Your task to perform on an android device: snooze an email in the gmail app Image 0: 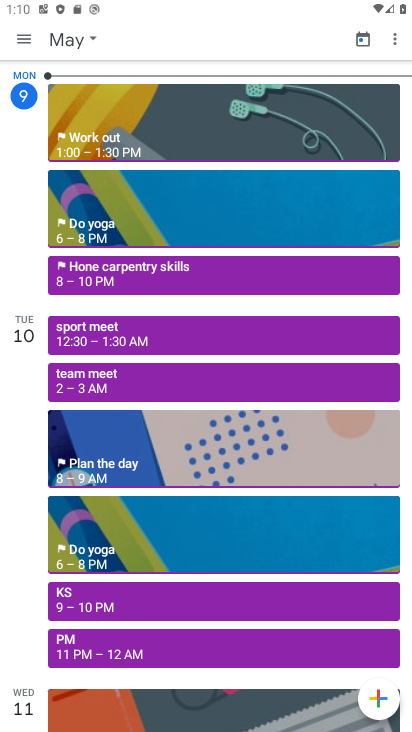
Step 0: press home button
Your task to perform on an android device: snooze an email in the gmail app Image 1: 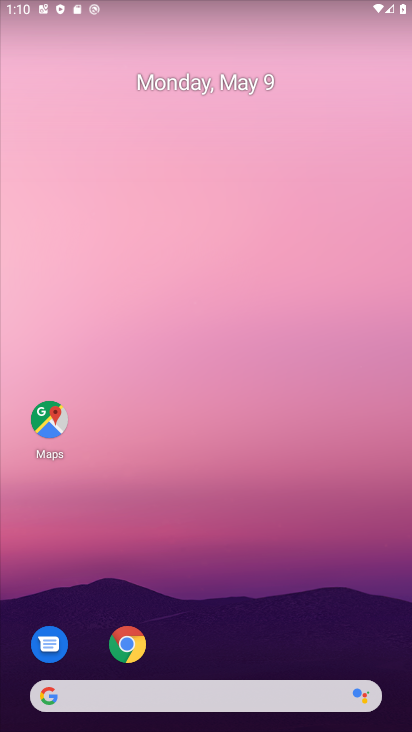
Step 1: drag from (247, 645) to (144, 269)
Your task to perform on an android device: snooze an email in the gmail app Image 2: 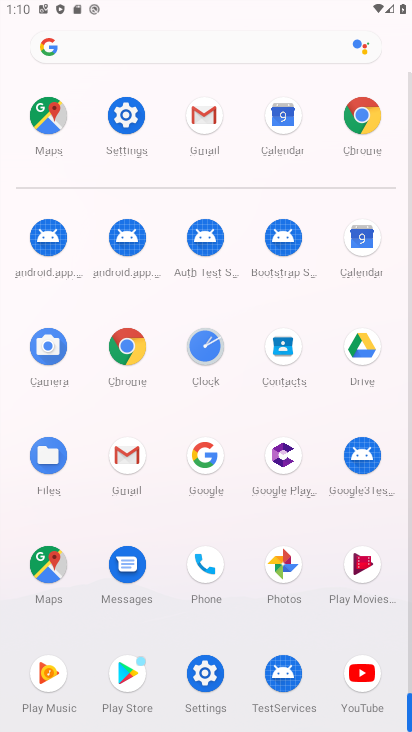
Step 2: click (210, 138)
Your task to perform on an android device: snooze an email in the gmail app Image 3: 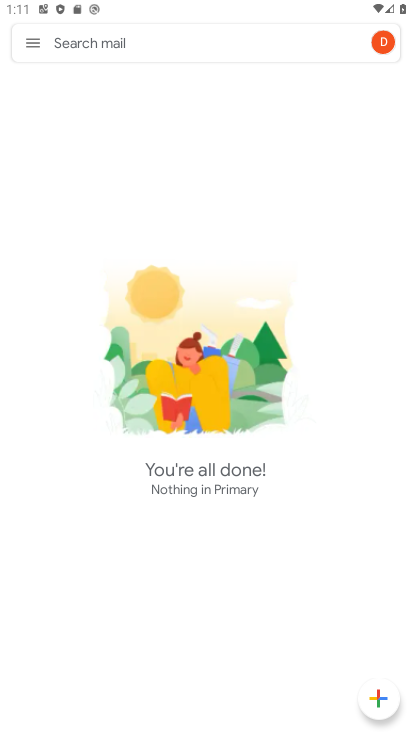
Step 3: press home button
Your task to perform on an android device: snooze an email in the gmail app Image 4: 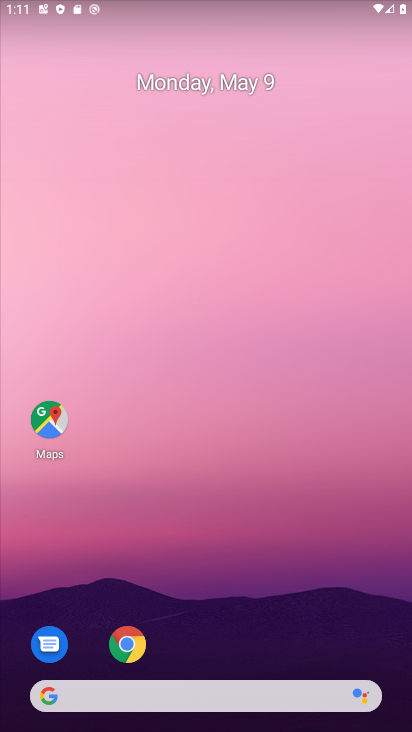
Step 4: drag from (295, 604) to (264, 169)
Your task to perform on an android device: snooze an email in the gmail app Image 5: 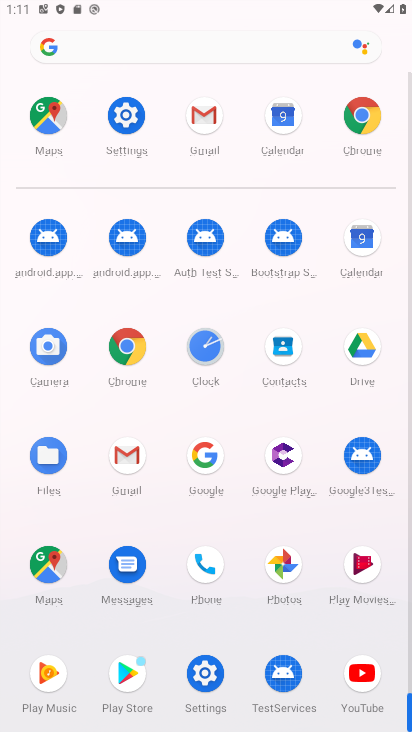
Step 5: click (200, 150)
Your task to perform on an android device: snooze an email in the gmail app Image 6: 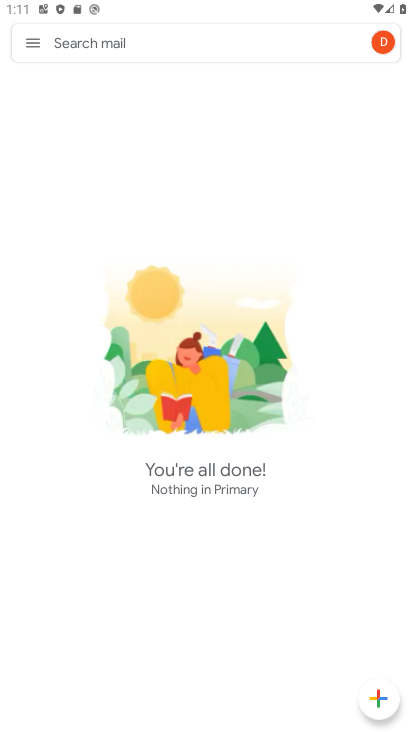
Step 6: click (30, 47)
Your task to perform on an android device: snooze an email in the gmail app Image 7: 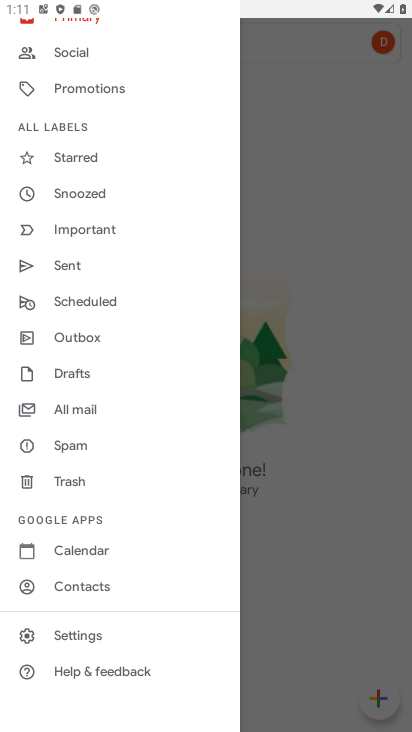
Step 7: click (78, 407)
Your task to perform on an android device: snooze an email in the gmail app Image 8: 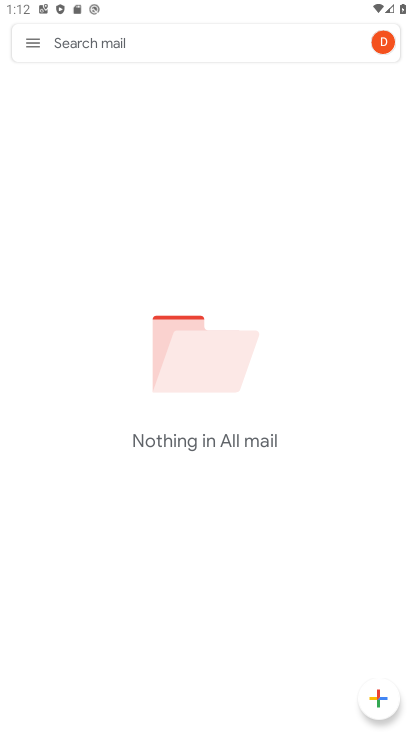
Step 8: task complete